Your task to perform on an android device: refresh tabs in the chrome app Image 0: 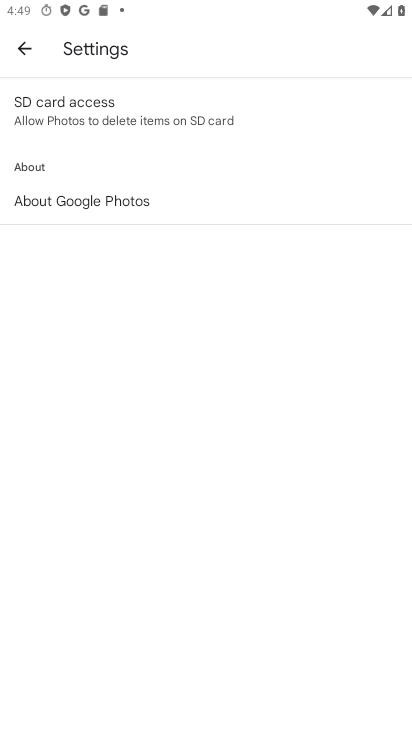
Step 0: press home button
Your task to perform on an android device: refresh tabs in the chrome app Image 1: 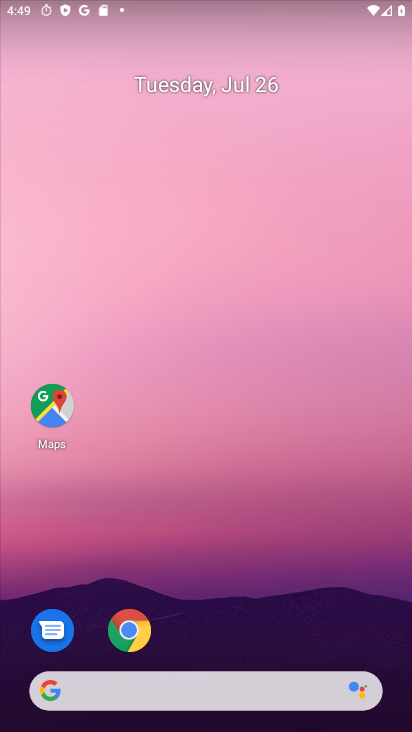
Step 1: drag from (278, 626) to (289, 138)
Your task to perform on an android device: refresh tabs in the chrome app Image 2: 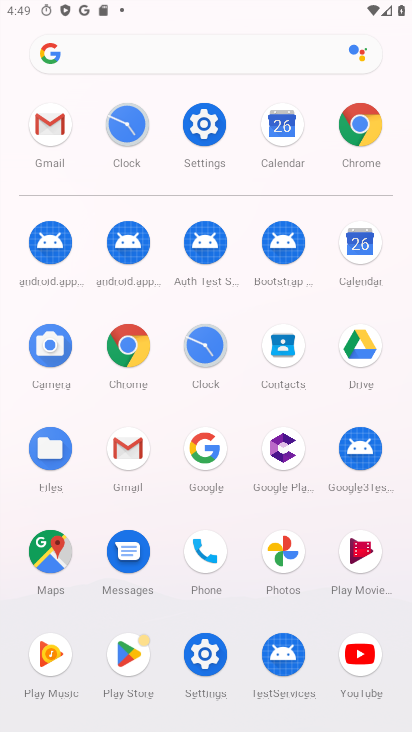
Step 2: click (361, 115)
Your task to perform on an android device: refresh tabs in the chrome app Image 3: 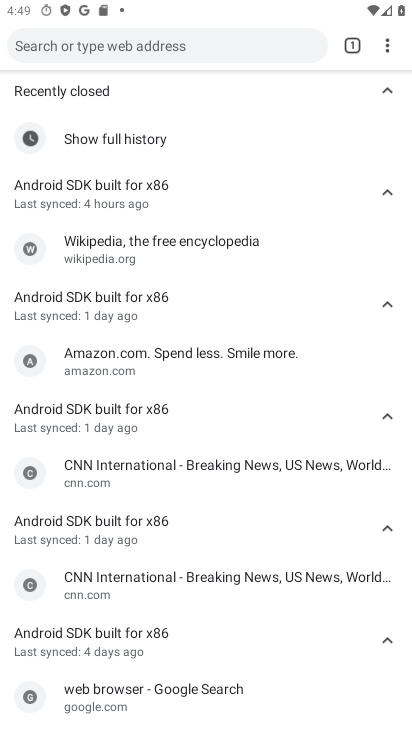
Step 3: click (388, 40)
Your task to perform on an android device: refresh tabs in the chrome app Image 4: 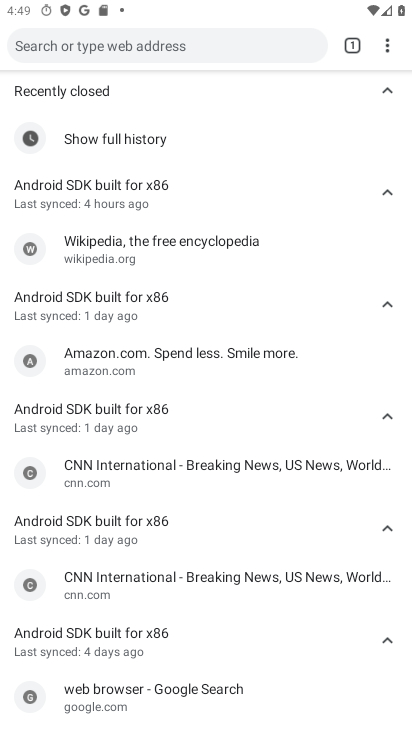
Step 4: task complete